Your task to perform on an android device: change keyboard looks Image 0: 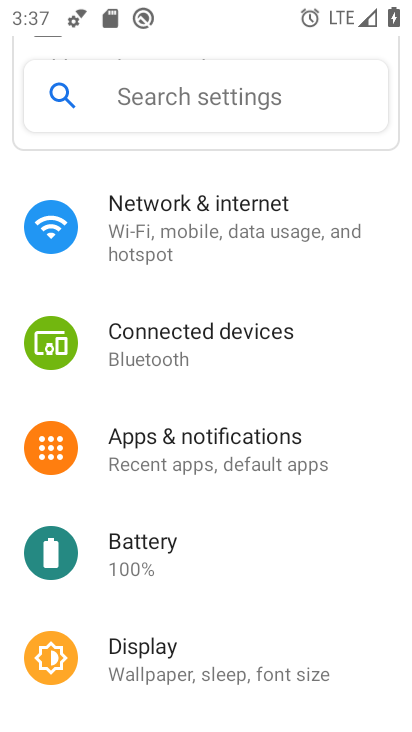
Step 0: drag from (346, 524) to (352, 457)
Your task to perform on an android device: change keyboard looks Image 1: 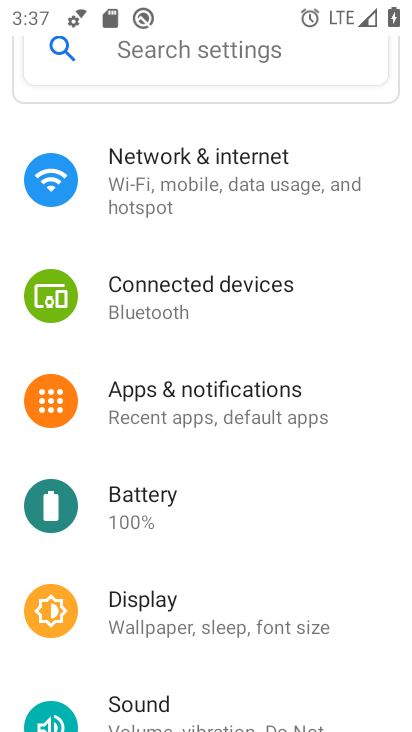
Step 1: drag from (358, 528) to (358, 426)
Your task to perform on an android device: change keyboard looks Image 2: 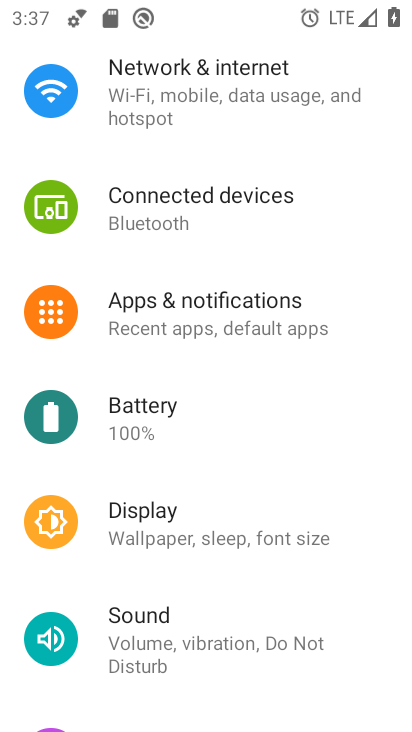
Step 2: drag from (346, 548) to (355, 462)
Your task to perform on an android device: change keyboard looks Image 3: 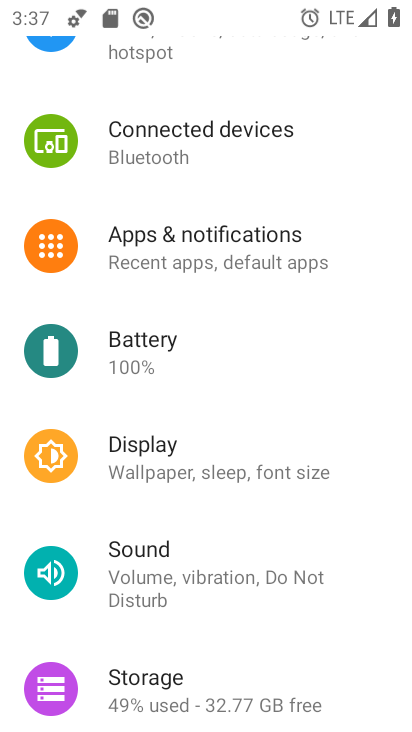
Step 3: drag from (357, 516) to (352, 433)
Your task to perform on an android device: change keyboard looks Image 4: 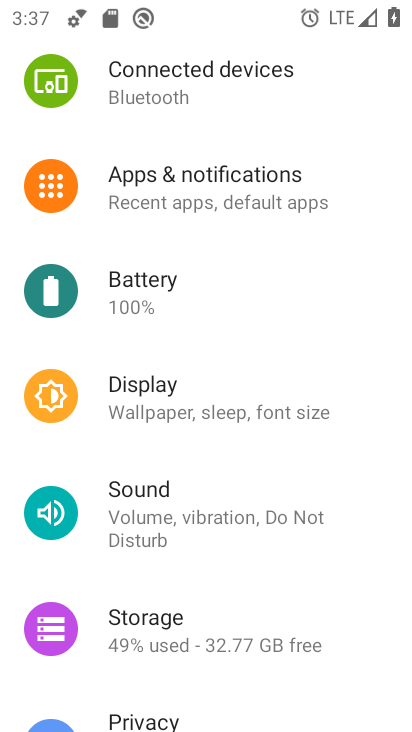
Step 4: drag from (355, 520) to (369, 438)
Your task to perform on an android device: change keyboard looks Image 5: 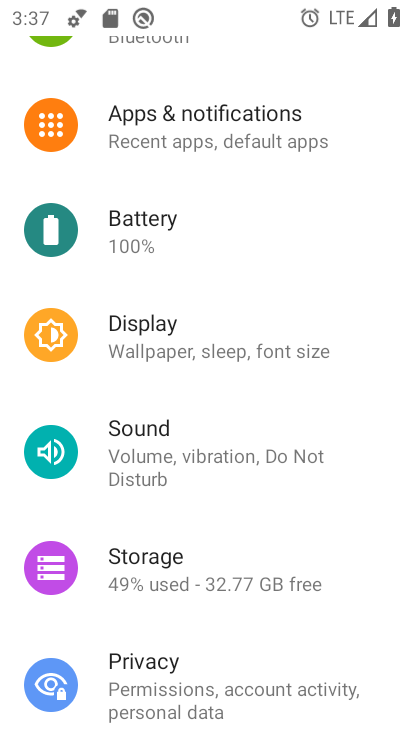
Step 5: drag from (370, 567) to (374, 467)
Your task to perform on an android device: change keyboard looks Image 6: 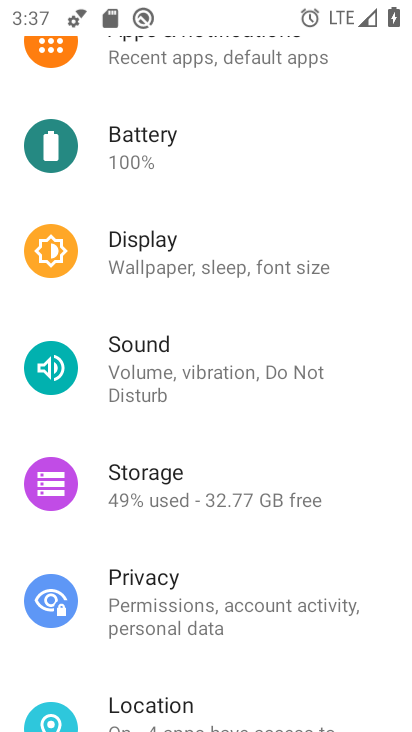
Step 6: drag from (368, 540) to (374, 474)
Your task to perform on an android device: change keyboard looks Image 7: 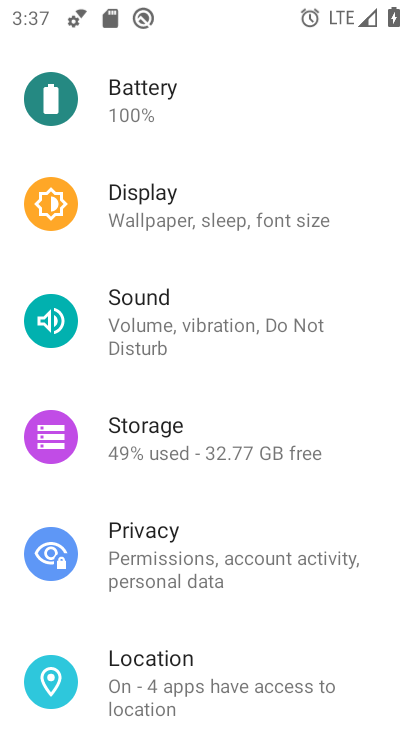
Step 7: drag from (383, 572) to (378, 443)
Your task to perform on an android device: change keyboard looks Image 8: 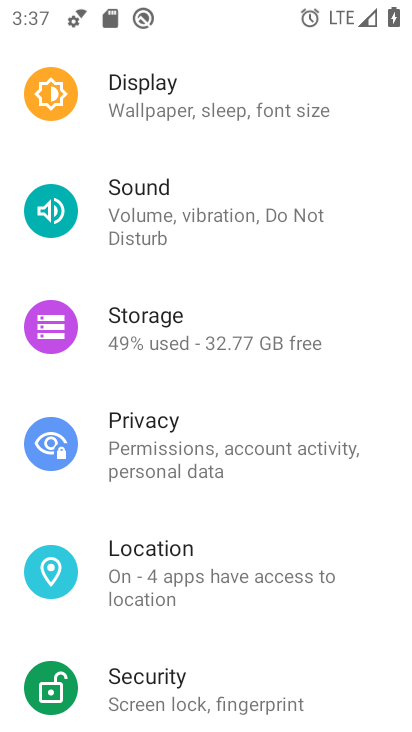
Step 8: drag from (367, 536) to (363, 432)
Your task to perform on an android device: change keyboard looks Image 9: 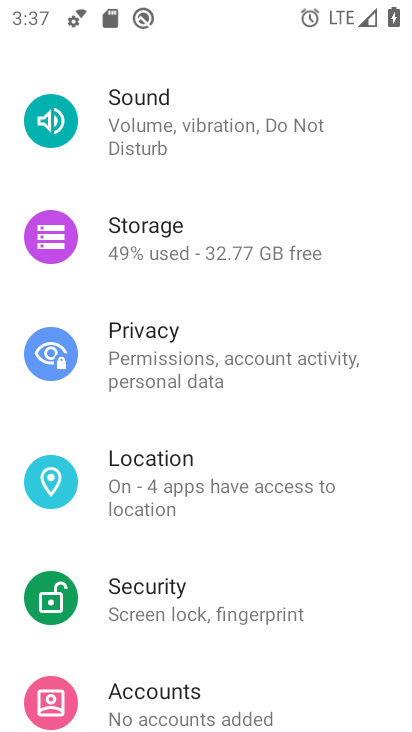
Step 9: drag from (351, 546) to (350, 452)
Your task to perform on an android device: change keyboard looks Image 10: 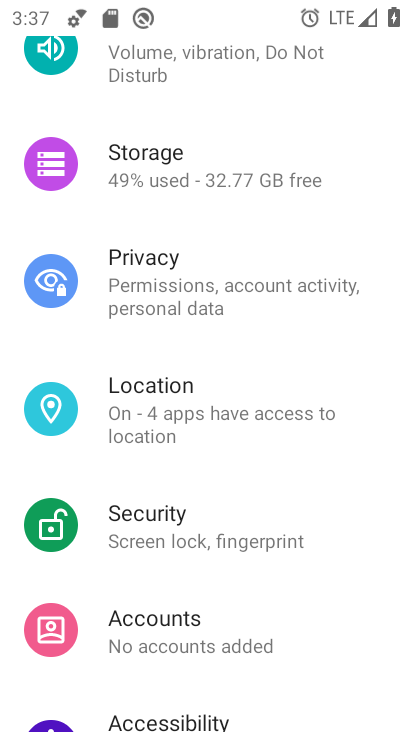
Step 10: drag from (347, 563) to (345, 459)
Your task to perform on an android device: change keyboard looks Image 11: 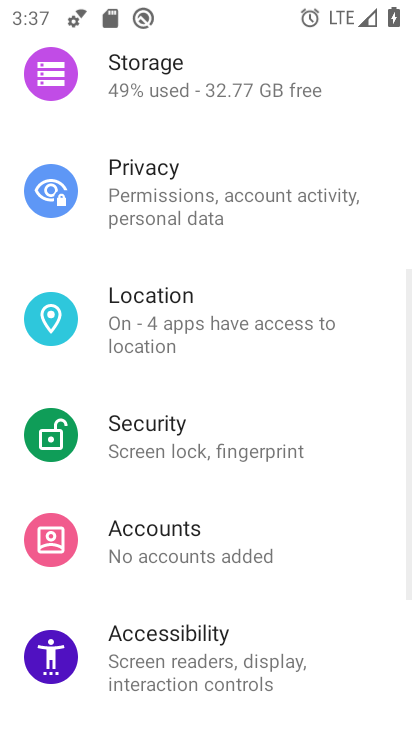
Step 11: drag from (338, 540) to (343, 364)
Your task to perform on an android device: change keyboard looks Image 12: 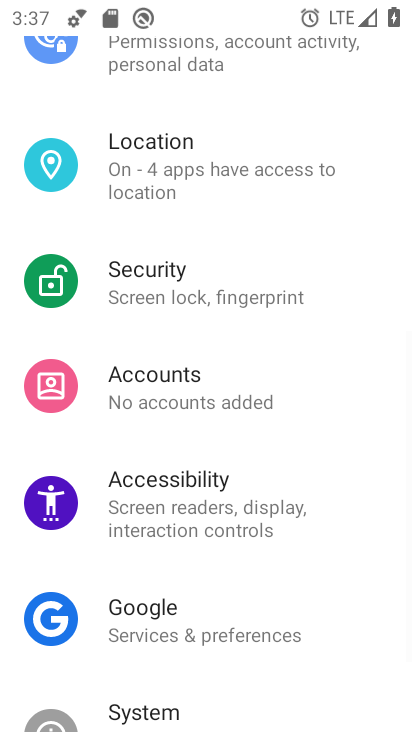
Step 12: drag from (338, 504) to (337, 381)
Your task to perform on an android device: change keyboard looks Image 13: 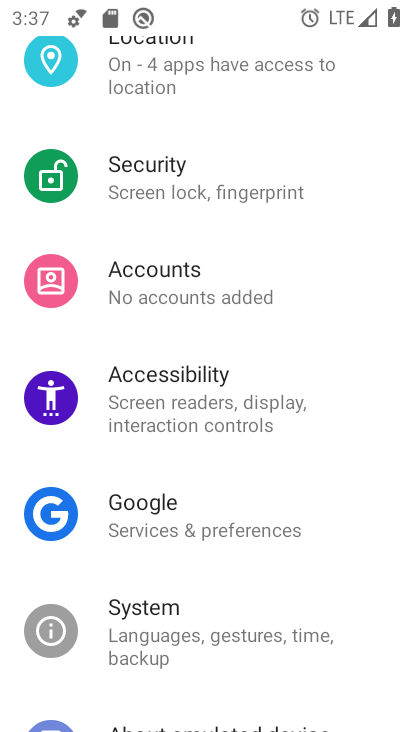
Step 13: click (324, 613)
Your task to perform on an android device: change keyboard looks Image 14: 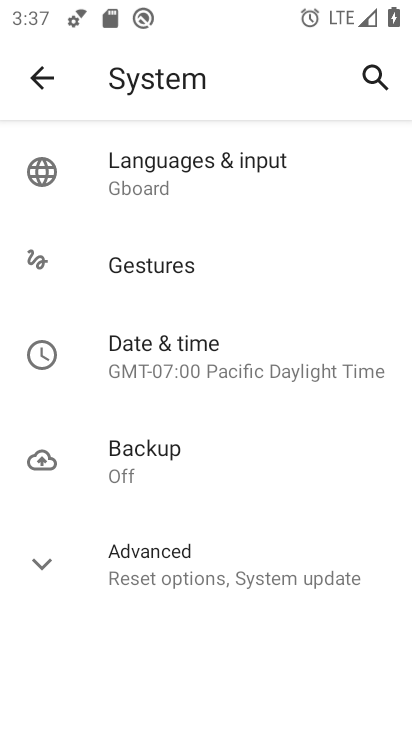
Step 14: click (191, 151)
Your task to perform on an android device: change keyboard looks Image 15: 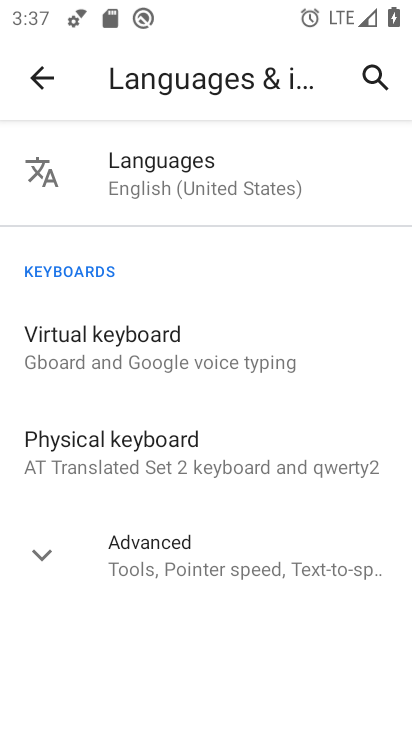
Step 15: click (197, 347)
Your task to perform on an android device: change keyboard looks Image 16: 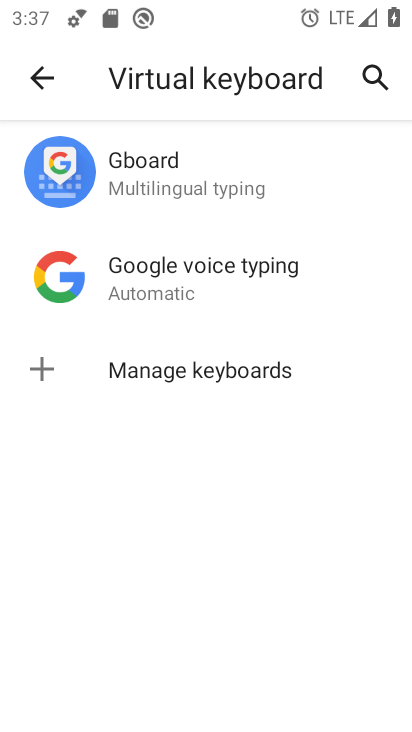
Step 16: click (171, 165)
Your task to perform on an android device: change keyboard looks Image 17: 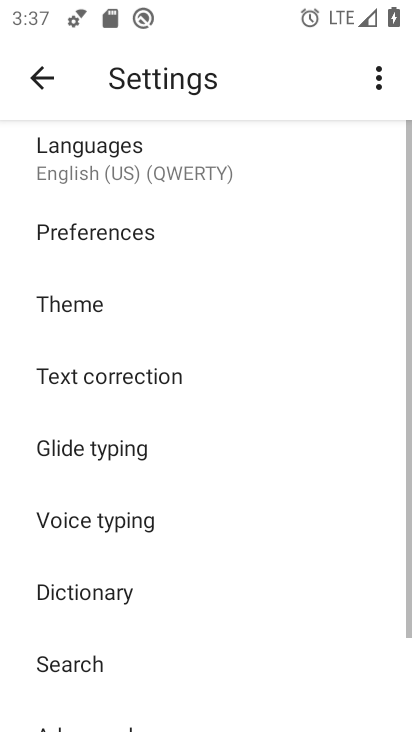
Step 17: click (158, 313)
Your task to perform on an android device: change keyboard looks Image 18: 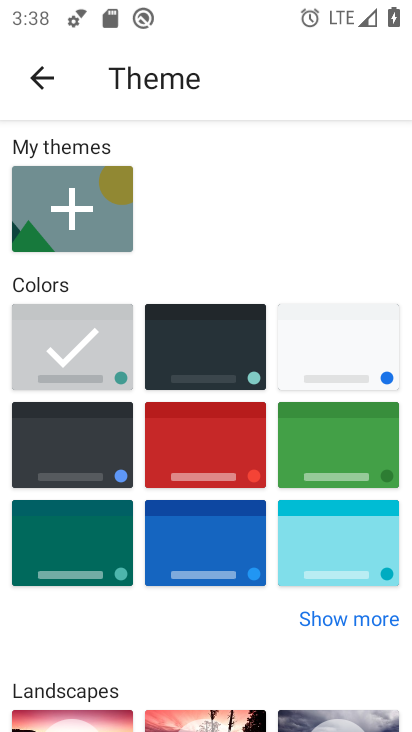
Step 18: click (166, 335)
Your task to perform on an android device: change keyboard looks Image 19: 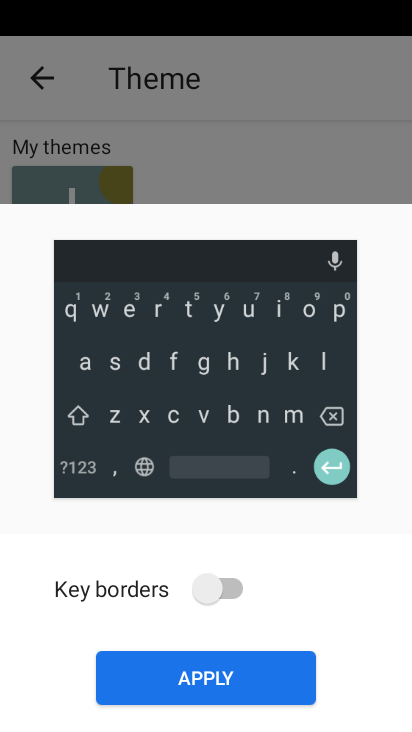
Step 19: click (221, 677)
Your task to perform on an android device: change keyboard looks Image 20: 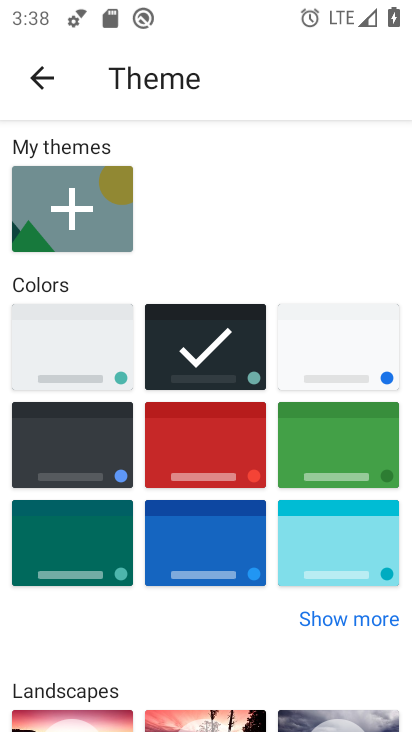
Step 20: task complete